Your task to perform on an android device: Open the map Image 0: 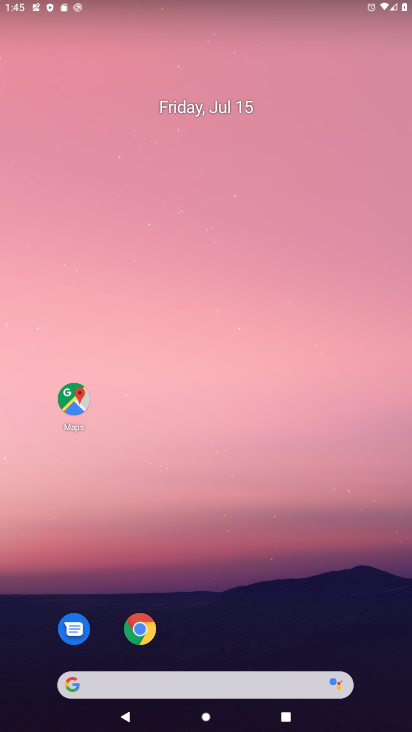
Step 0: drag from (294, 631) to (245, 31)
Your task to perform on an android device: Open the map Image 1: 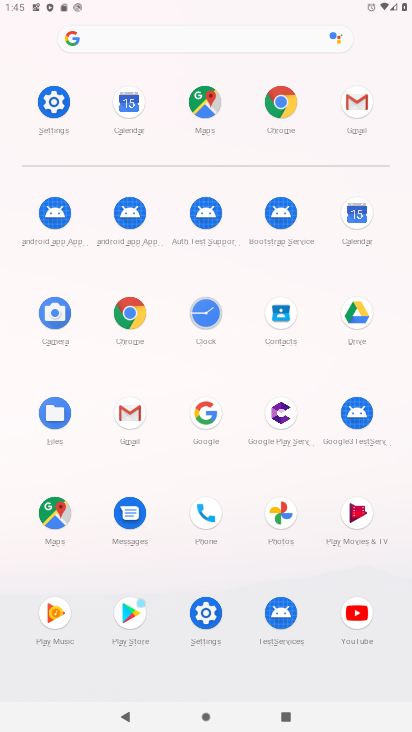
Step 1: click (210, 100)
Your task to perform on an android device: Open the map Image 2: 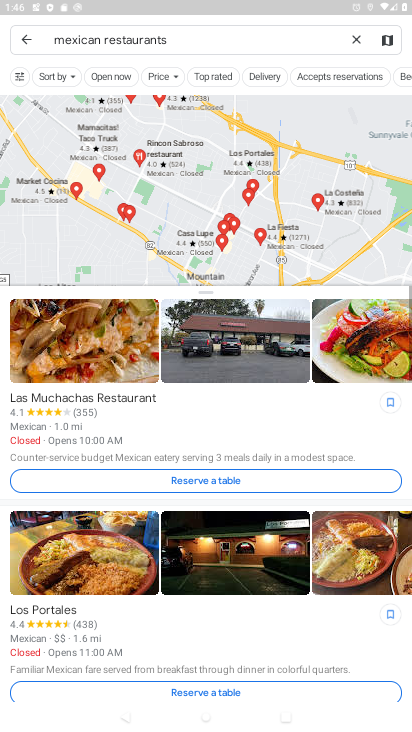
Step 2: task complete